Your task to perform on an android device: turn smart compose on in the gmail app Image 0: 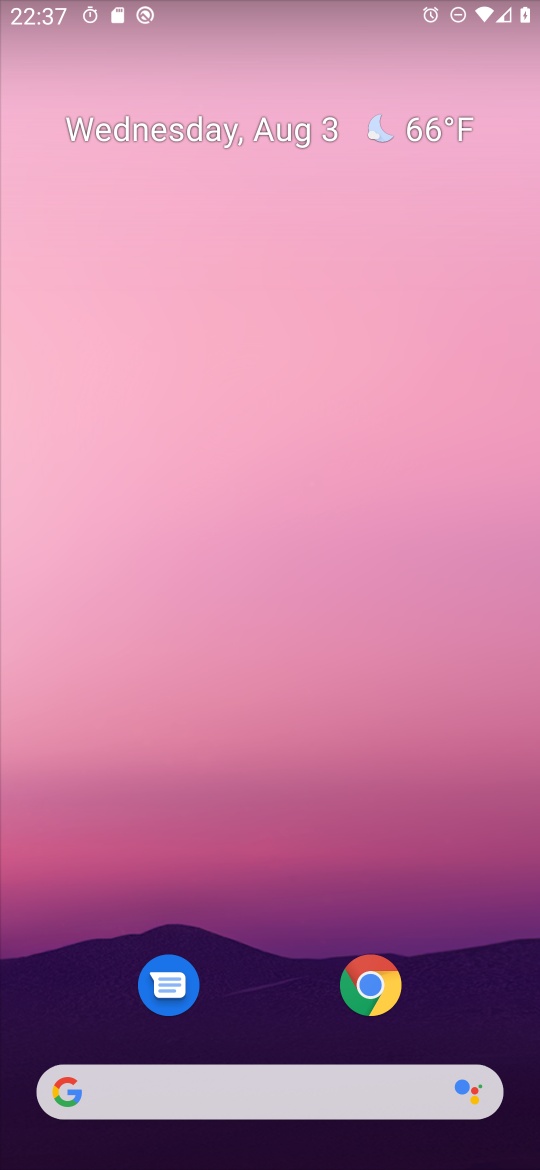
Step 0: drag from (250, 917) to (261, 334)
Your task to perform on an android device: turn smart compose on in the gmail app Image 1: 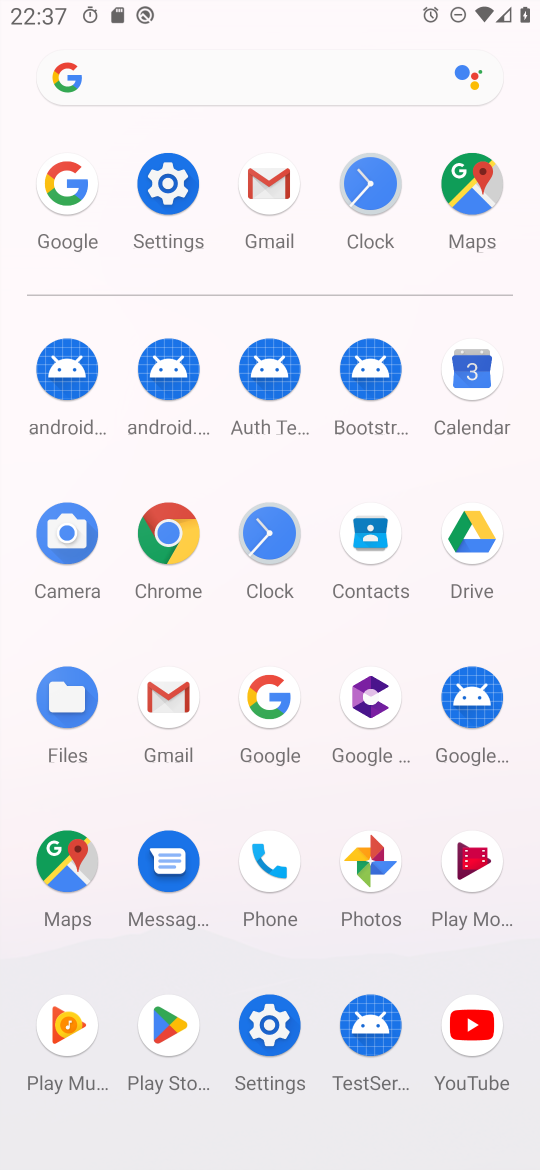
Step 1: click (282, 211)
Your task to perform on an android device: turn smart compose on in the gmail app Image 2: 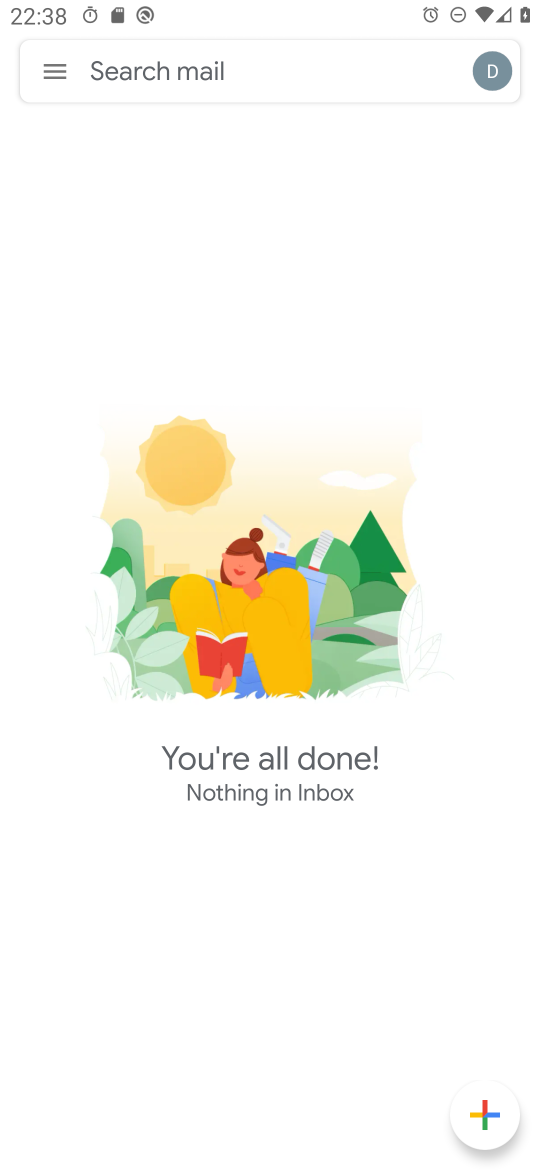
Step 2: click (60, 66)
Your task to perform on an android device: turn smart compose on in the gmail app Image 3: 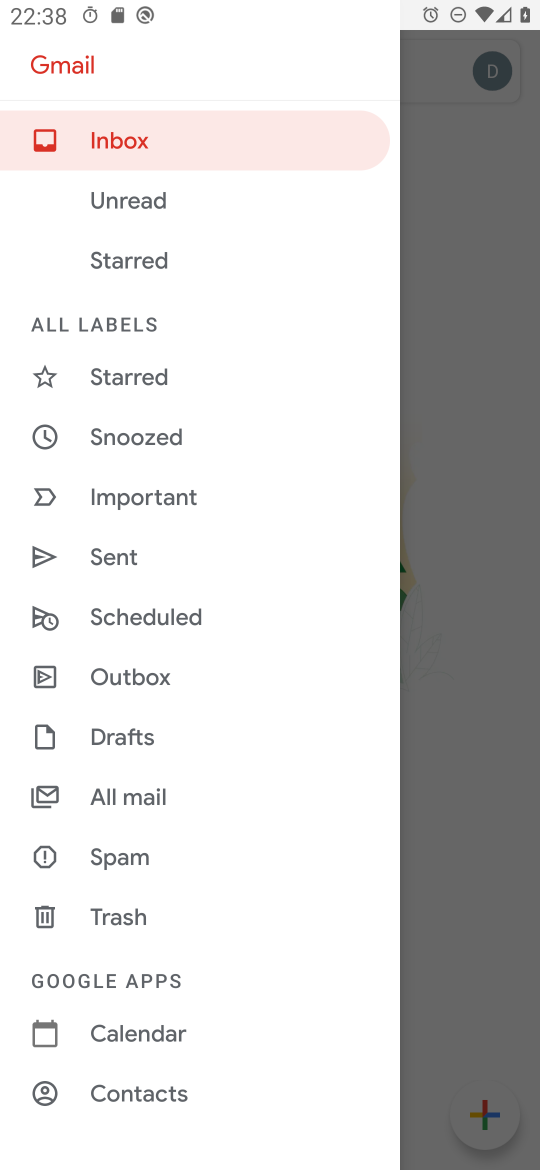
Step 3: drag from (141, 1038) to (198, 424)
Your task to perform on an android device: turn smart compose on in the gmail app Image 4: 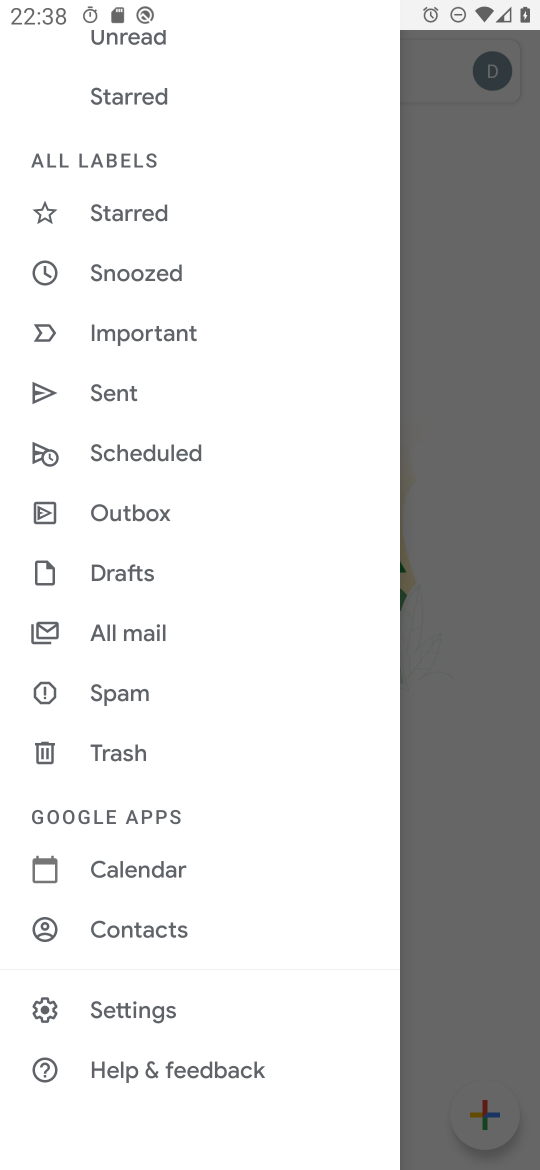
Step 4: click (177, 999)
Your task to perform on an android device: turn smart compose on in the gmail app Image 5: 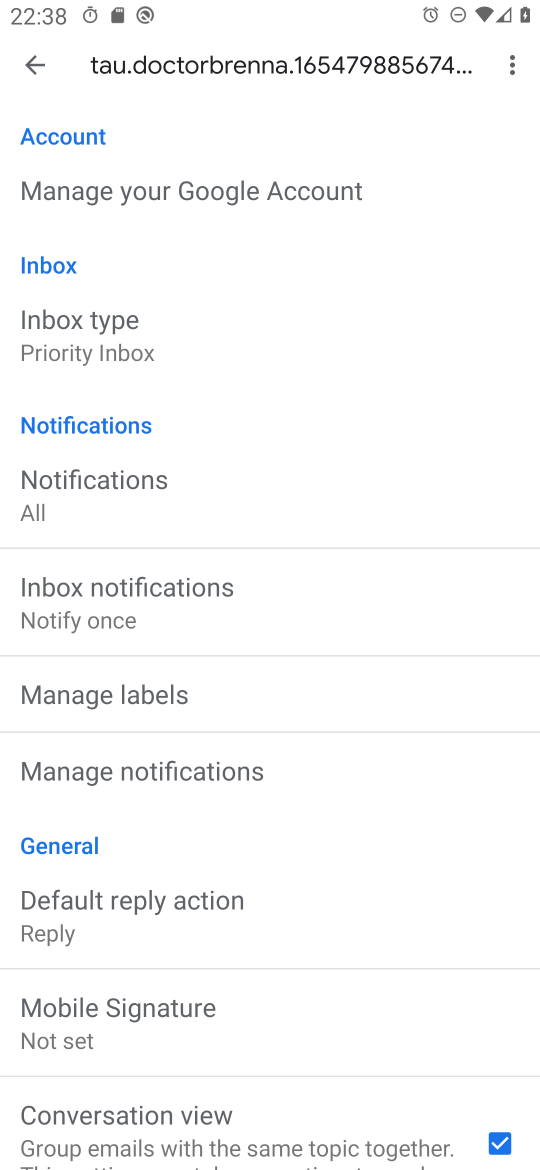
Step 5: task complete